Your task to perform on an android device: check the backup settings in the google photos Image 0: 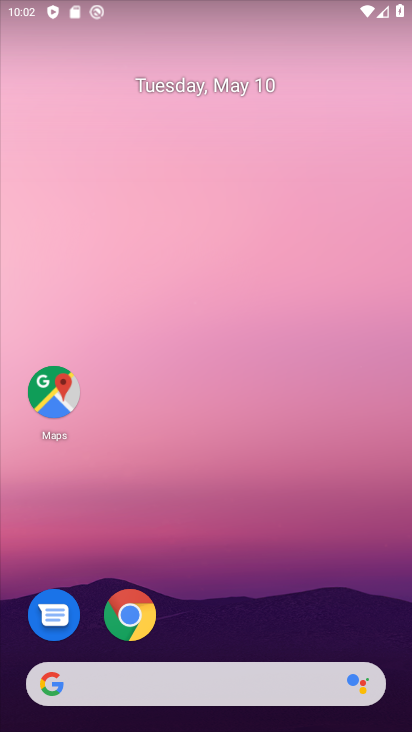
Step 0: drag from (278, 597) to (218, 136)
Your task to perform on an android device: check the backup settings in the google photos Image 1: 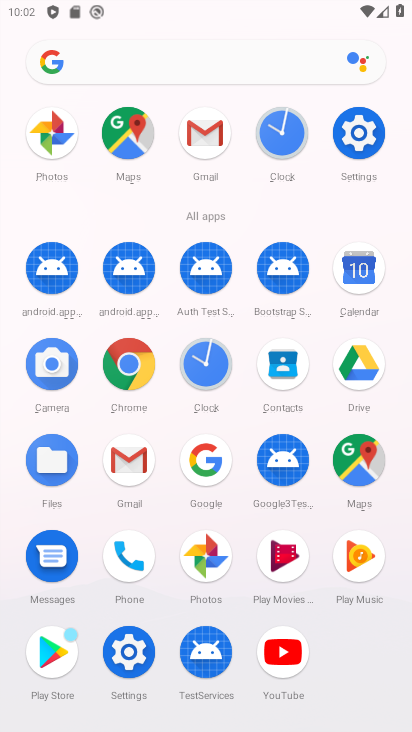
Step 1: click (206, 555)
Your task to perform on an android device: check the backup settings in the google photos Image 2: 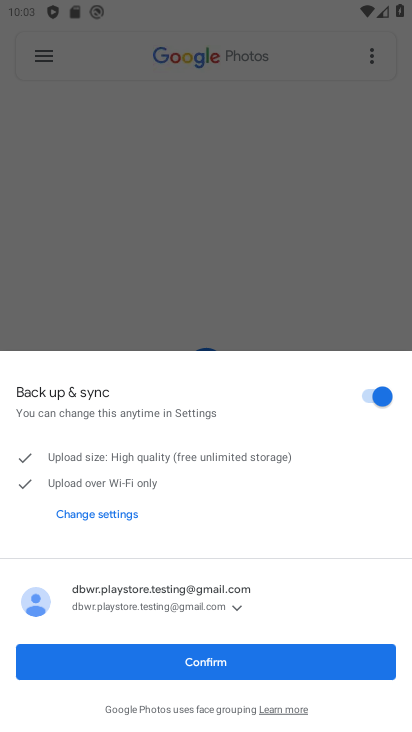
Step 2: click (202, 659)
Your task to perform on an android device: check the backup settings in the google photos Image 3: 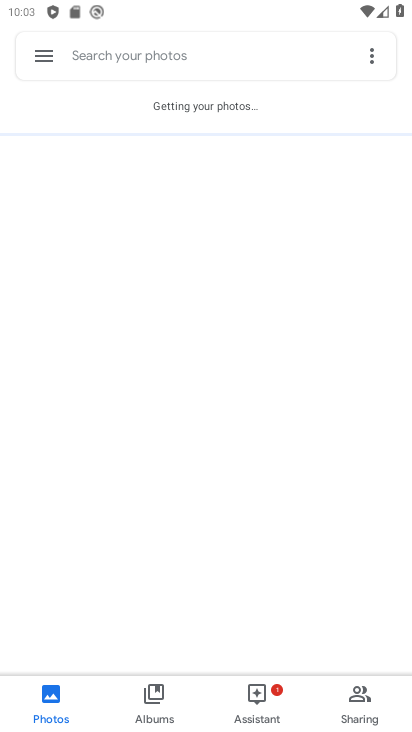
Step 3: click (44, 53)
Your task to perform on an android device: check the backup settings in the google photos Image 4: 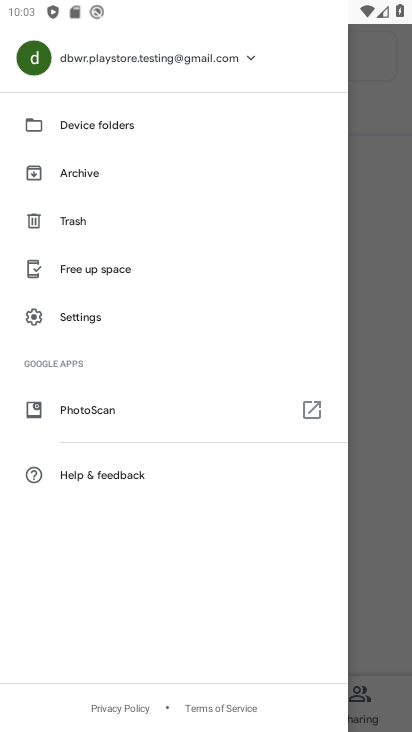
Step 4: click (86, 319)
Your task to perform on an android device: check the backup settings in the google photos Image 5: 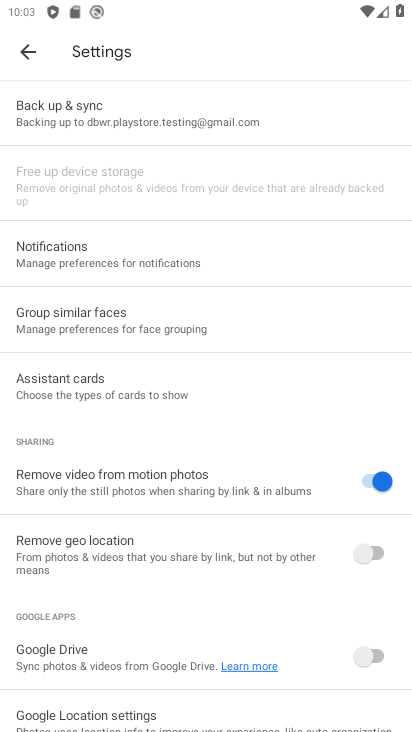
Step 5: click (99, 114)
Your task to perform on an android device: check the backup settings in the google photos Image 6: 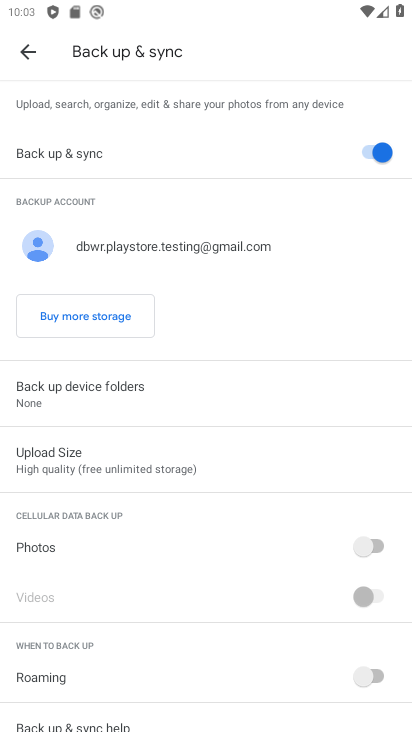
Step 6: task complete